Your task to perform on an android device: delete the emails in spam in the gmail app Image 0: 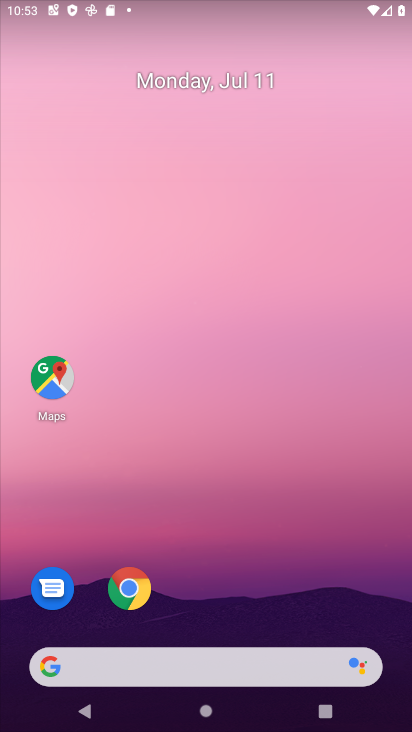
Step 0: drag from (226, 561) to (173, 133)
Your task to perform on an android device: delete the emails in spam in the gmail app Image 1: 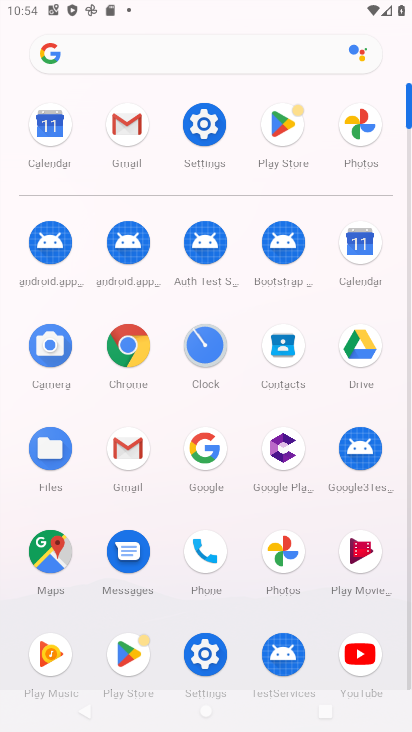
Step 1: click (128, 131)
Your task to perform on an android device: delete the emails in spam in the gmail app Image 2: 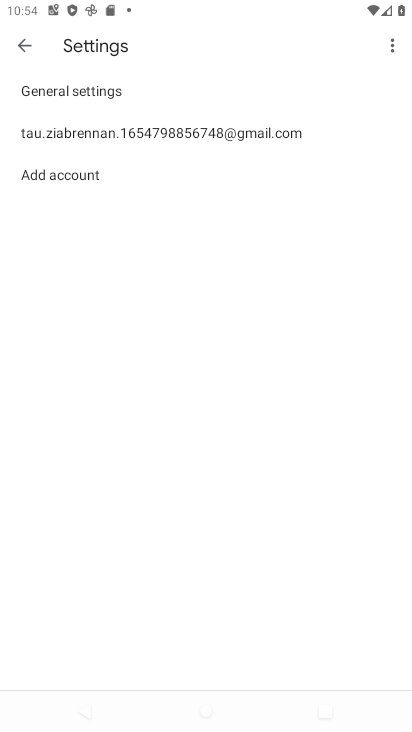
Step 2: click (130, 132)
Your task to perform on an android device: delete the emails in spam in the gmail app Image 3: 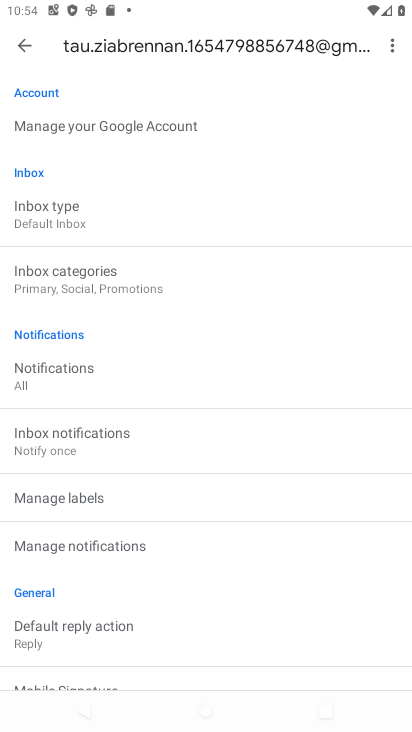
Step 3: click (36, 41)
Your task to perform on an android device: delete the emails in spam in the gmail app Image 4: 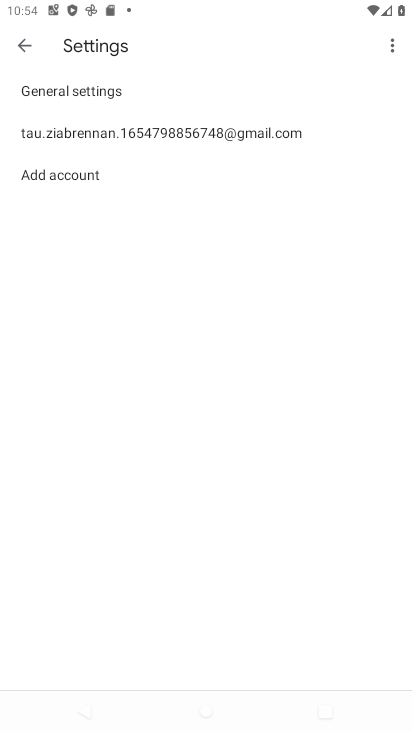
Step 4: click (36, 41)
Your task to perform on an android device: delete the emails in spam in the gmail app Image 5: 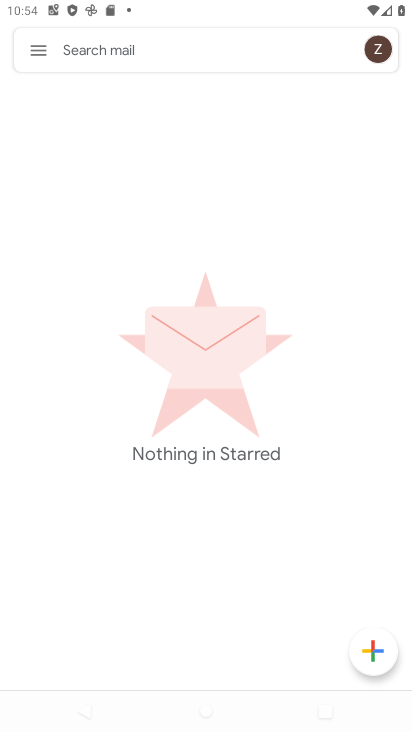
Step 5: click (36, 46)
Your task to perform on an android device: delete the emails in spam in the gmail app Image 6: 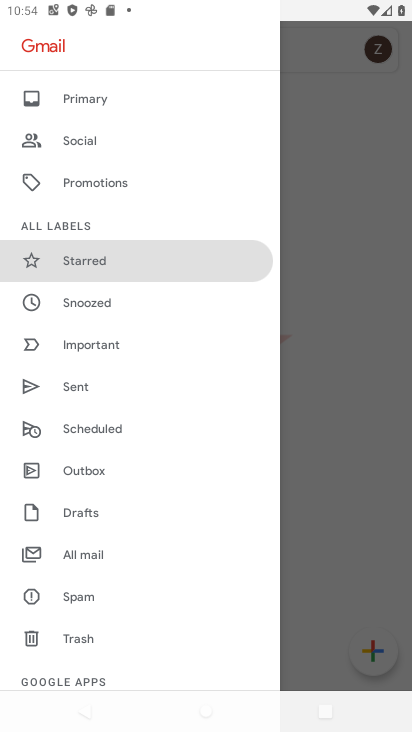
Step 6: click (89, 594)
Your task to perform on an android device: delete the emails in spam in the gmail app Image 7: 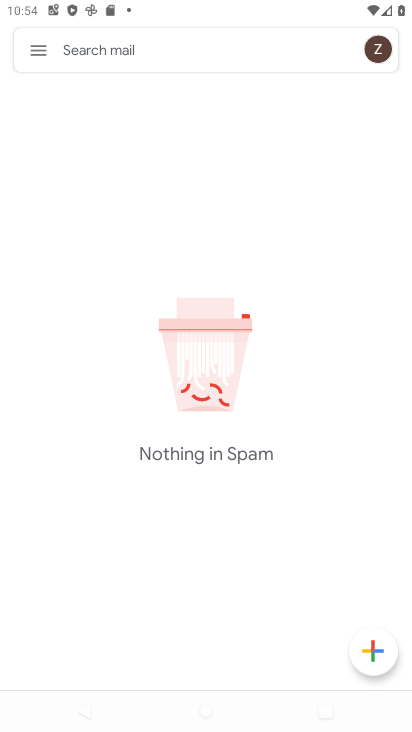
Step 7: task complete